Your task to perform on an android device: Open settings on Google Maps Image 0: 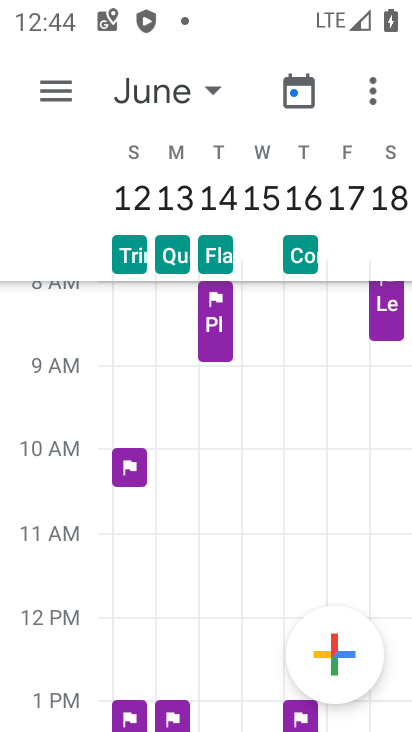
Step 0: press home button
Your task to perform on an android device: Open settings on Google Maps Image 1: 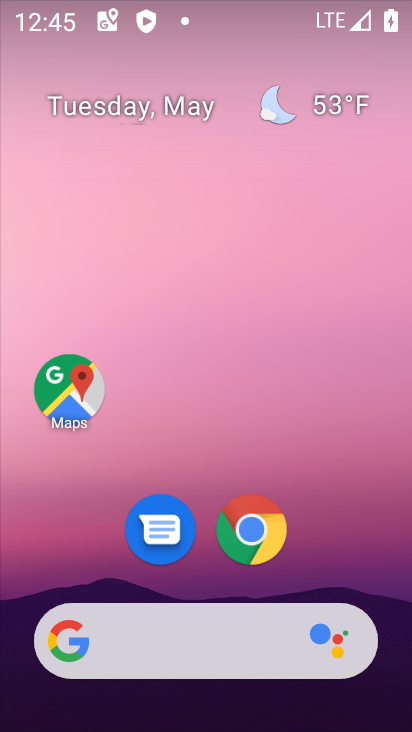
Step 1: drag from (222, 720) to (222, 141)
Your task to perform on an android device: Open settings on Google Maps Image 2: 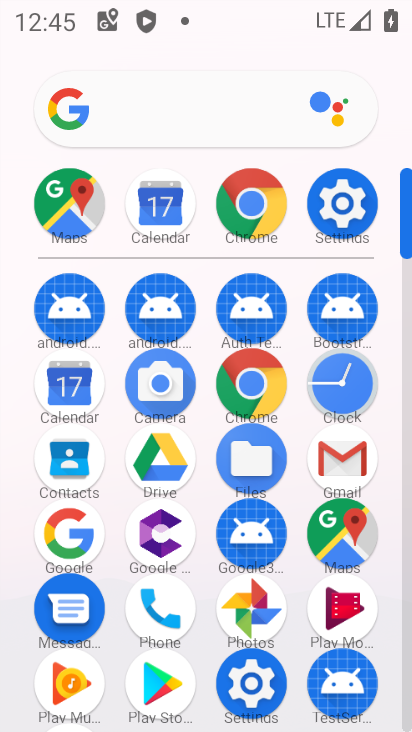
Step 2: click (342, 527)
Your task to perform on an android device: Open settings on Google Maps Image 3: 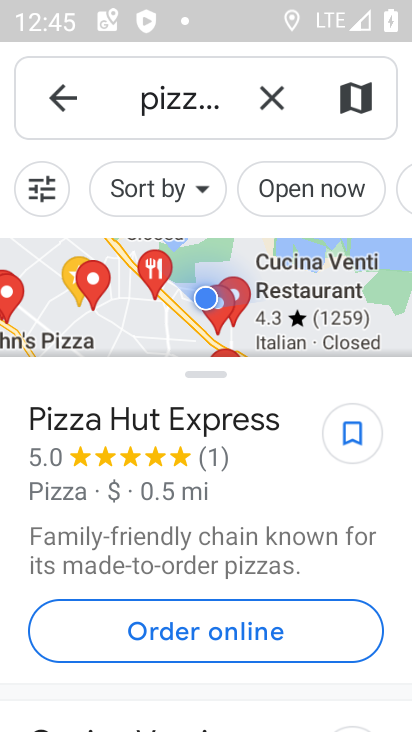
Step 3: click (55, 92)
Your task to perform on an android device: Open settings on Google Maps Image 4: 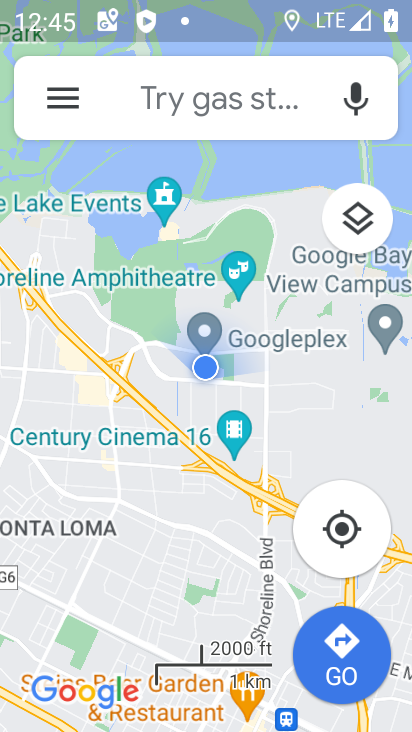
Step 4: click (57, 99)
Your task to perform on an android device: Open settings on Google Maps Image 5: 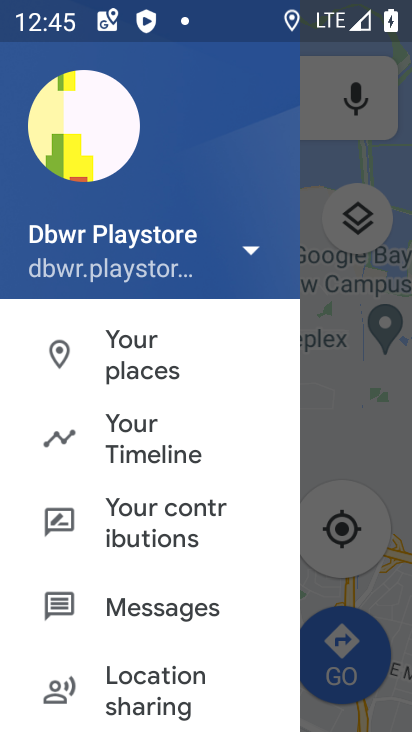
Step 5: drag from (171, 658) to (171, 239)
Your task to perform on an android device: Open settings on Google Maps Image 6: 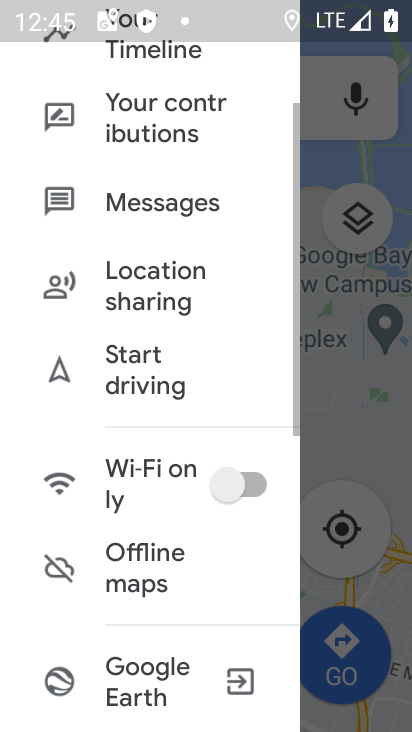
Step 6: drag from (129, 640) to (139, 178)
Your task to perform on an android device: Open settings on Google Maps Image 7: 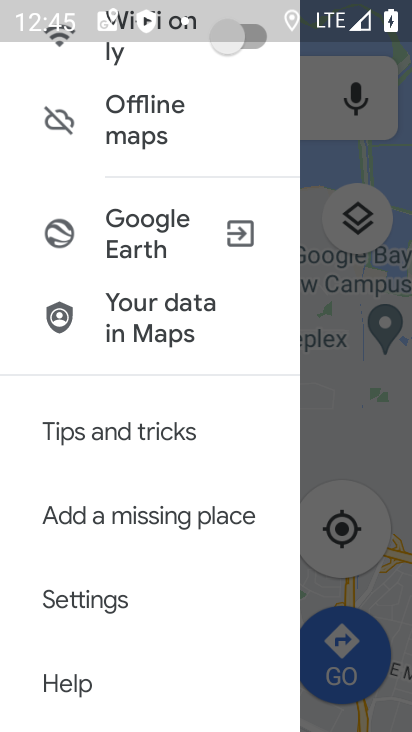
Step 7: click (94, 597)
Your task to perform on an android device: Open settings on Google Maps Image 8: 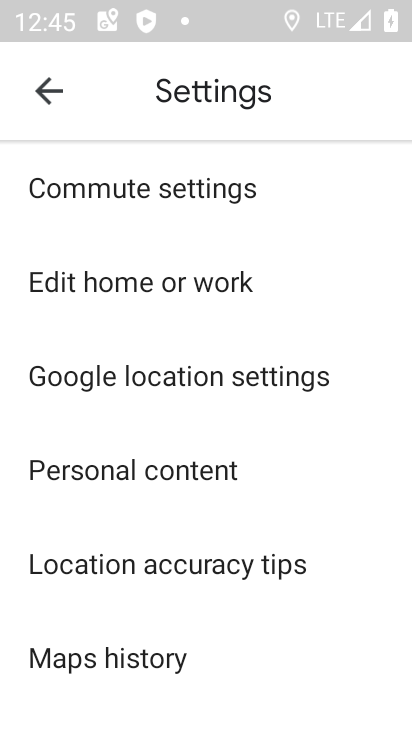
Step 8: task complete